Your task to perform on an android device: delete a single message in the gmail app Image 0: 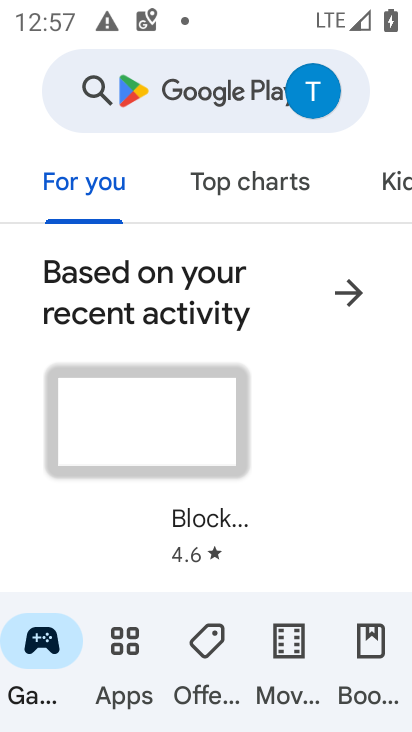
Step 0: press home button
Your task to perform on an android device: delete a single message in the gmail app Image 1: 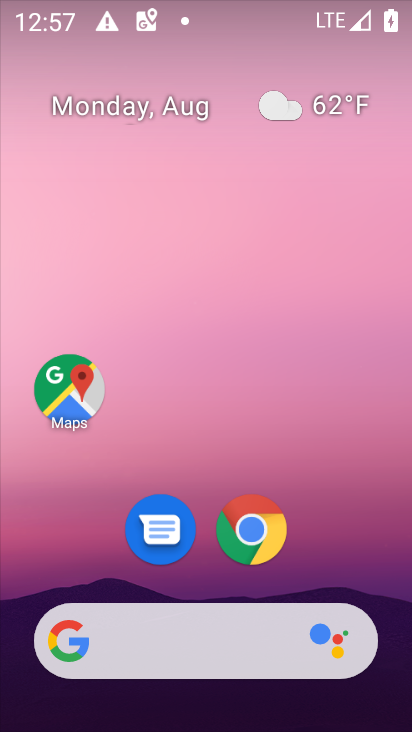
Step 1: drag from (193, 603) to (199, 182)
Your task to perform on an android device: delete a single message in the gmail app Image 2: 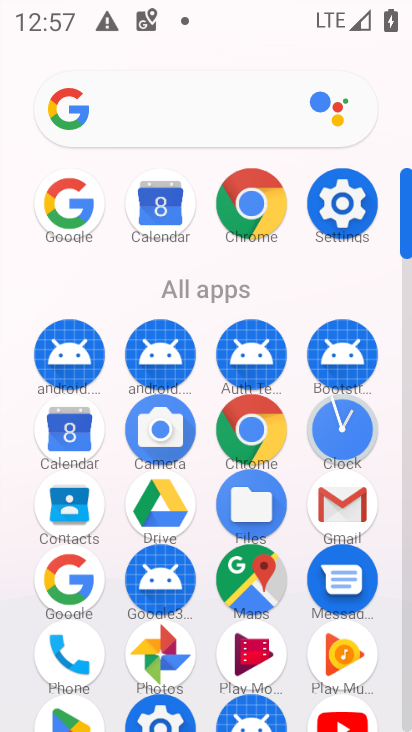
Step 2: click (341, 510)
Your task to perform on an android device: delete a single message in the gmail app Image 3: 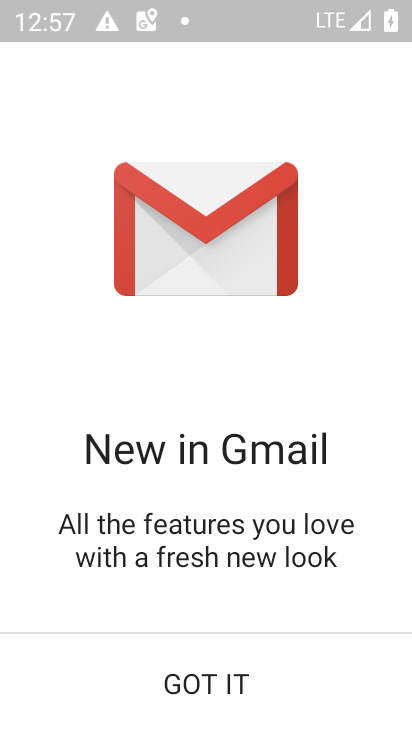
Step 3: click (192, 685)
Your task to perform on an android device: delete a single message in the gmail app Image 4: 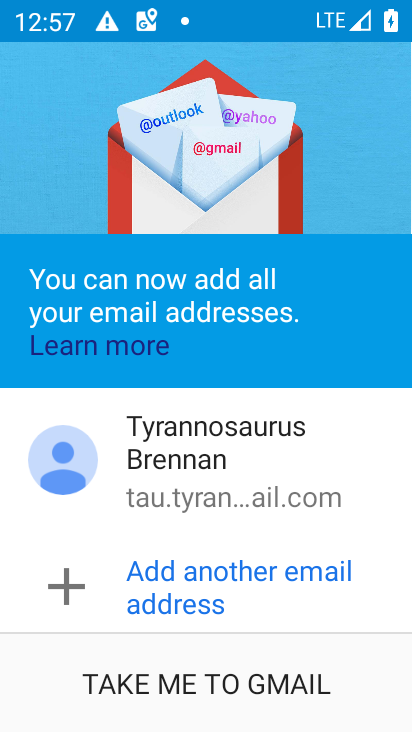
Step 4: click (225, 687)
Your task to perform on an android device: delete a single message in the gmail app Image 5: 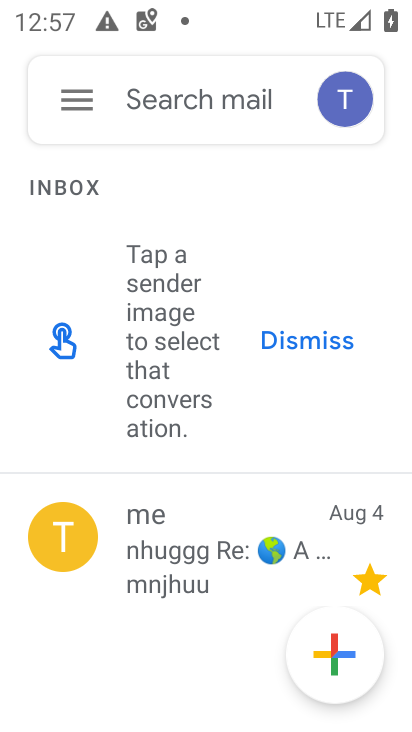
Step 5: click (183, 548)
Your task to perform on an android device: delete a single message in the gmail app Image 6: 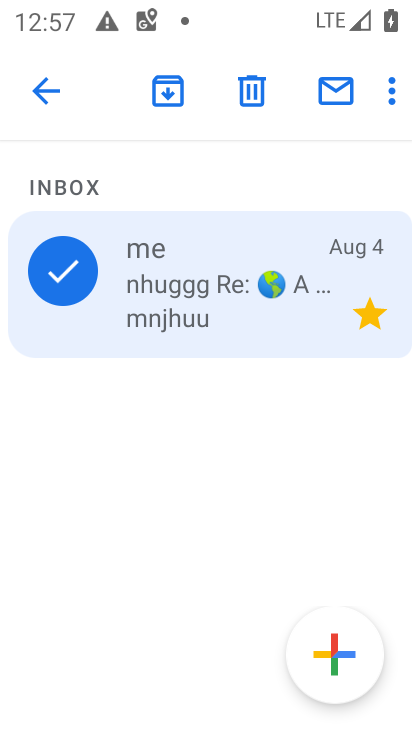
Step 6: click (244, 85)
Your task to perform on an android device: delete a single message in the gmail app Image 7: 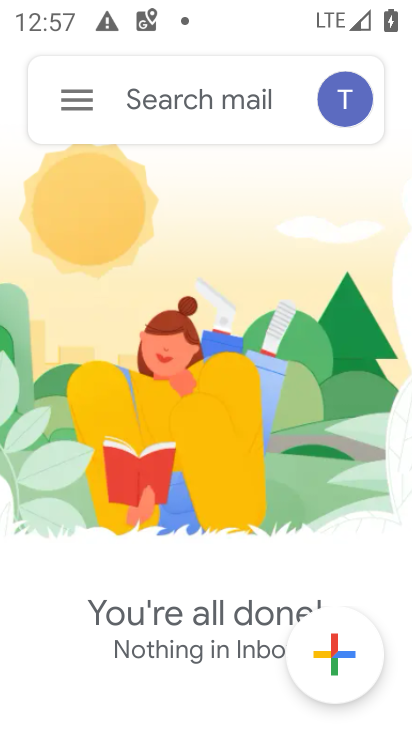
Step 7: task complete